Your task to perform on an android device: turn off translation in the chrome app Image 0: 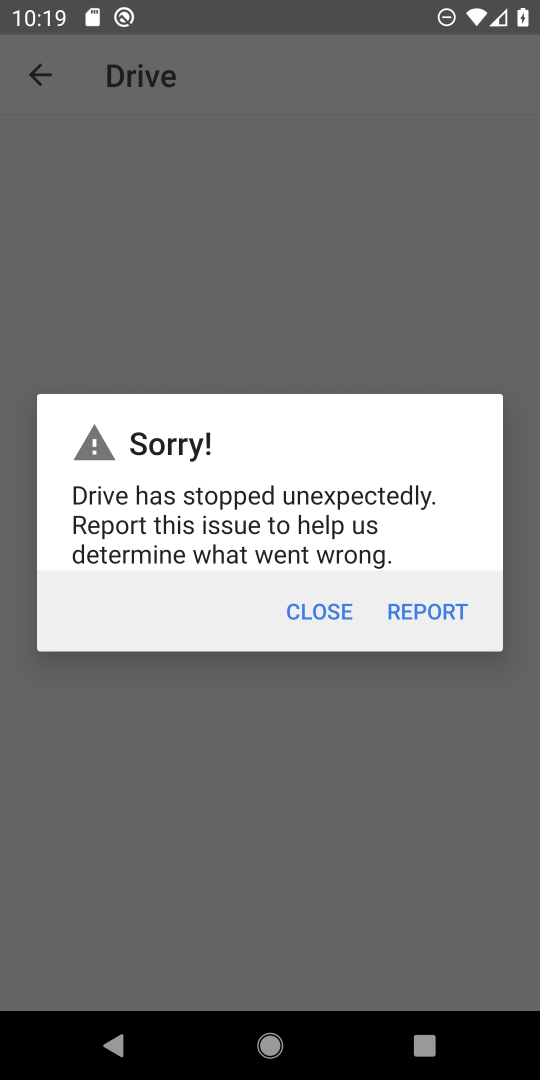
Step 0: click (302, 610)
Your task to perform on an android device: turn off translation in the chrome app Image 1: 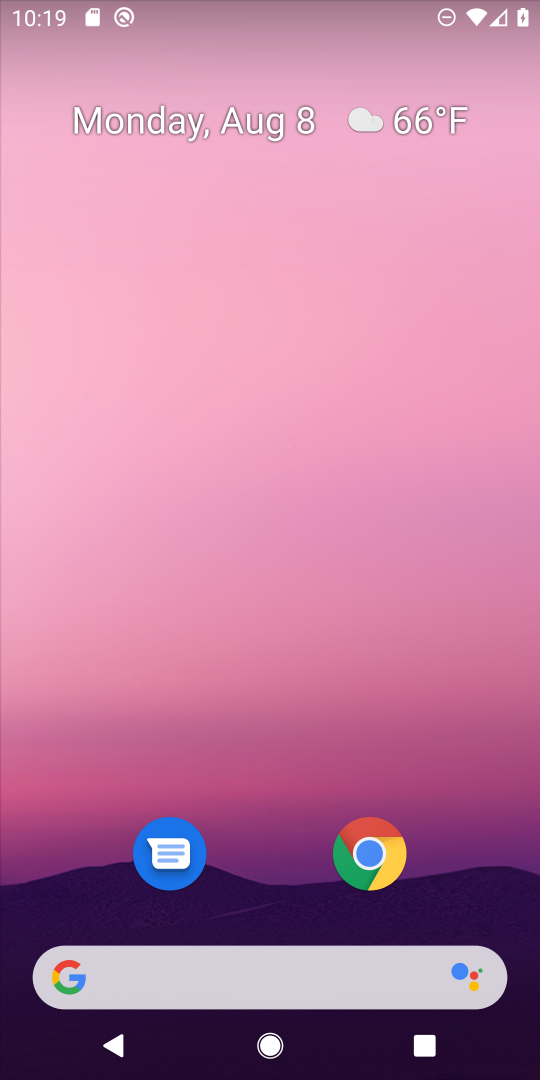
Step 1: click (351, 845)
Your task to perform on an android device: turn off translation in the chrome app Image 2: 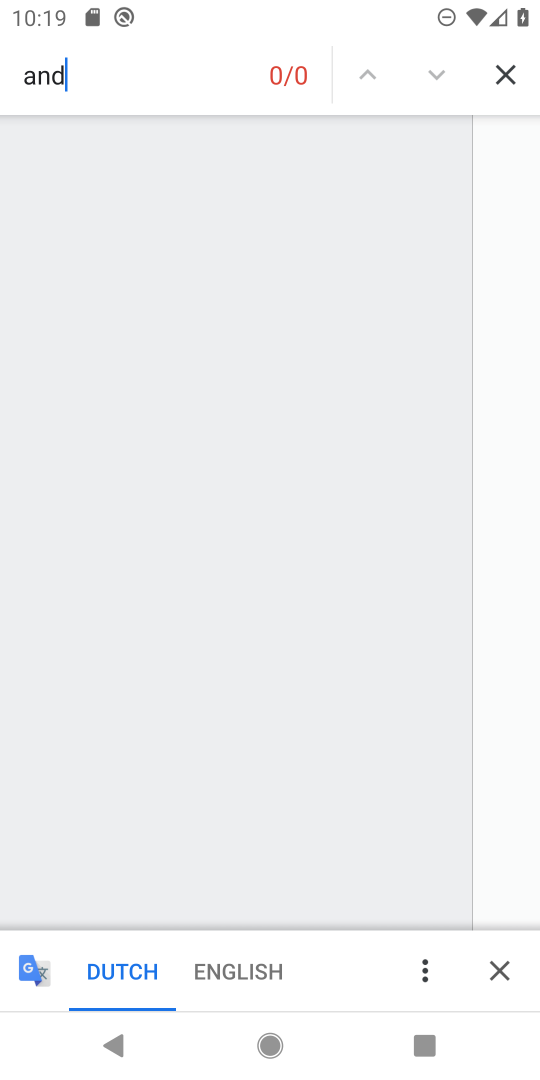
Step 2: click (217, 982)
Your task to perform on an android device: turn off translation in the chrome app Image 3: 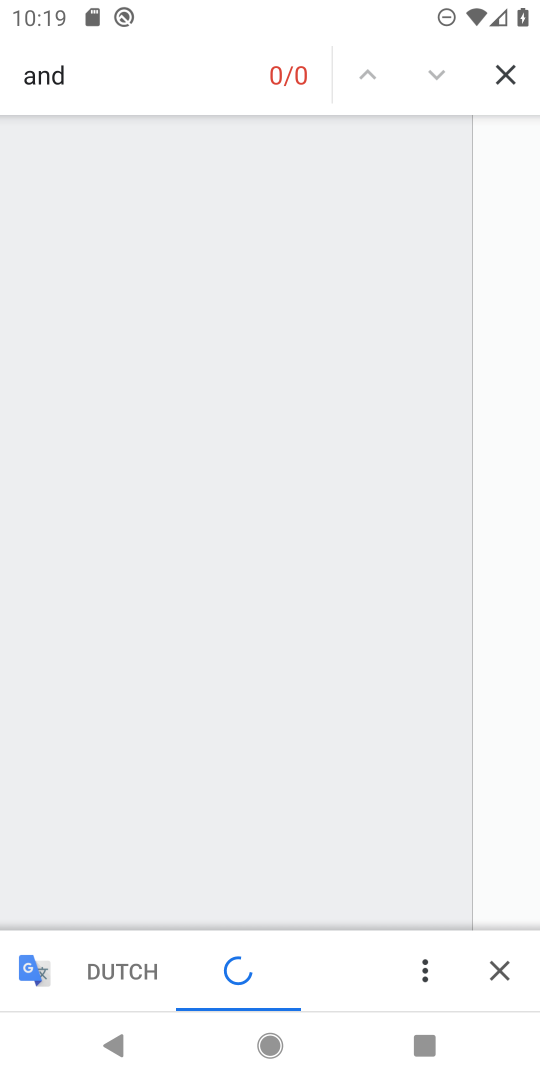
Step 3: click (502, 964)
Your task to perform on an android device: turn off translation in the chrome app Image 4: 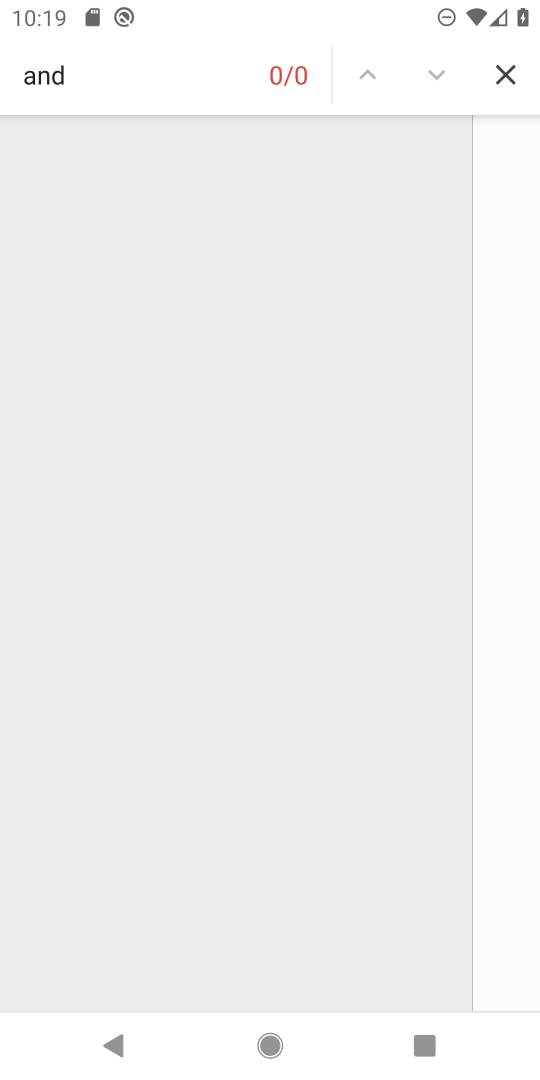
Step 4: click (496, 76)
Your task to perform on an android device: turn off translation in the chrome app Image 5: 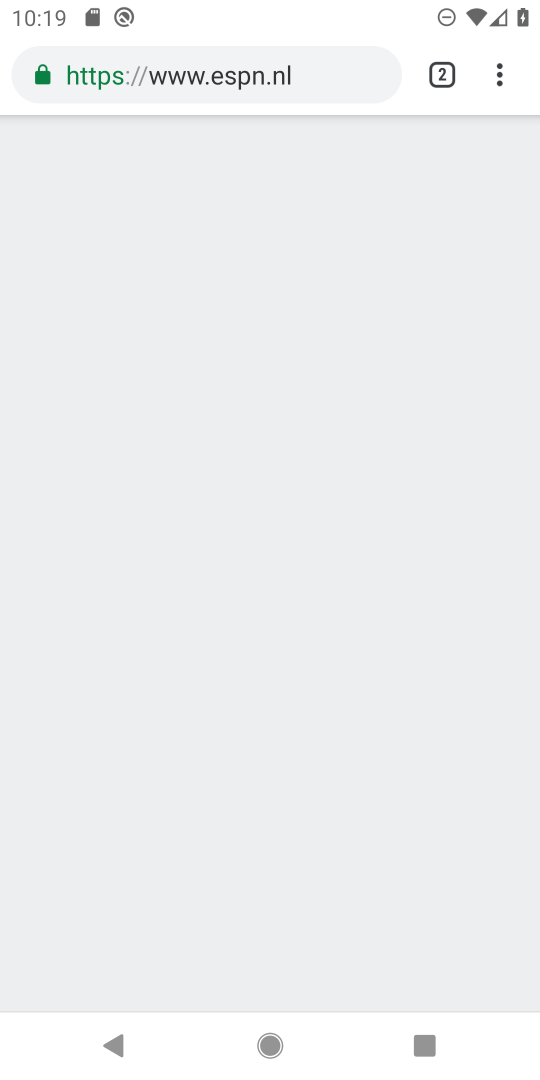
Step 5: click (496, 76)
Your task to perform on an android device: turn off translation in the chrome app Image 6: 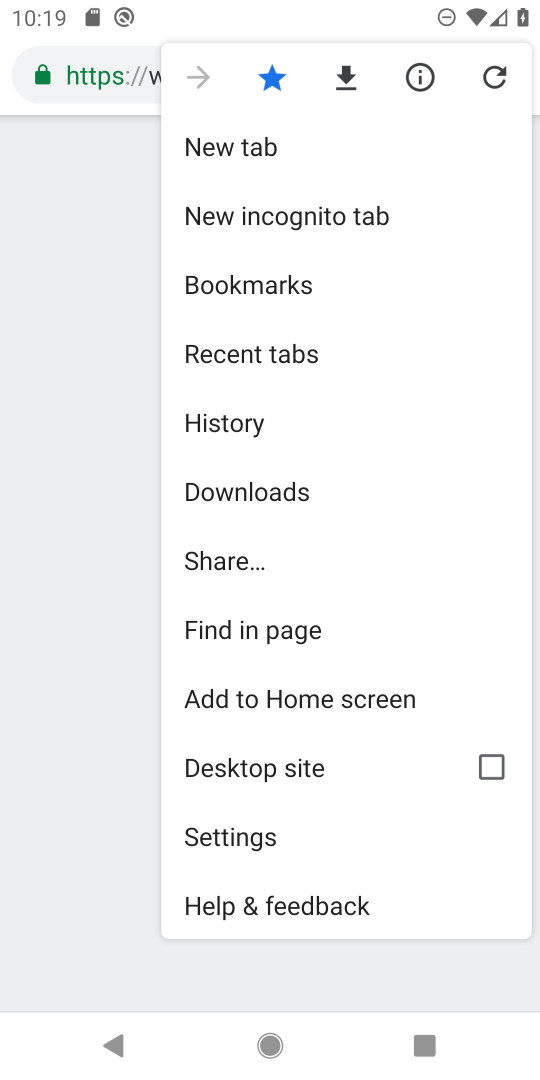
Step 6: click (230, 833)
Your task to perform on an android device: turn off translation in the chrome app Image 7: 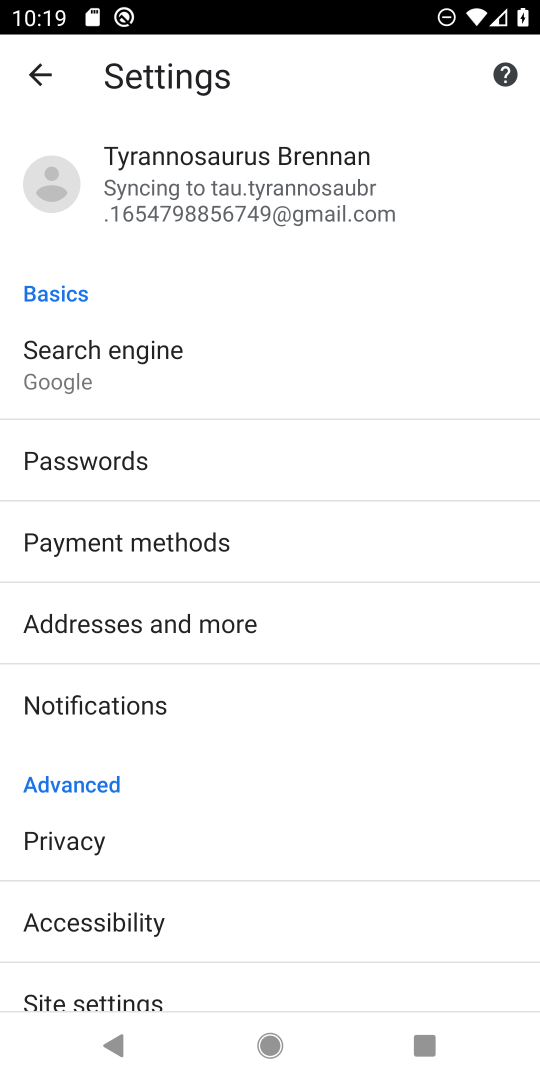
Step 7: drag from (259, 831) to (217, 585)
Your task to perform on an android device: turn off translation in the chrome app Image 8: 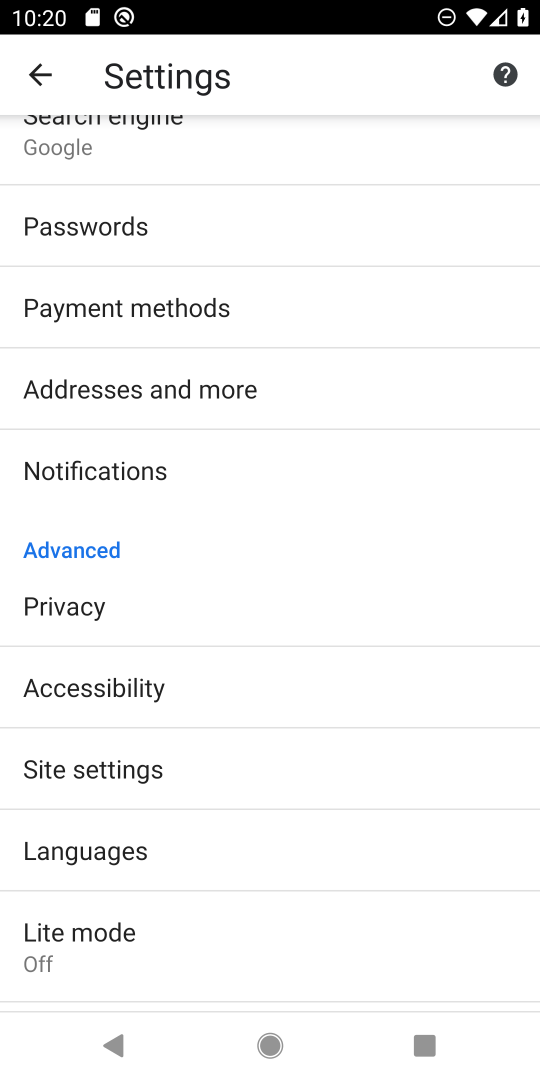
Step 8: click (61, 765)
Your task to perform on an android device: turn off translation in the chrome app Image 9: 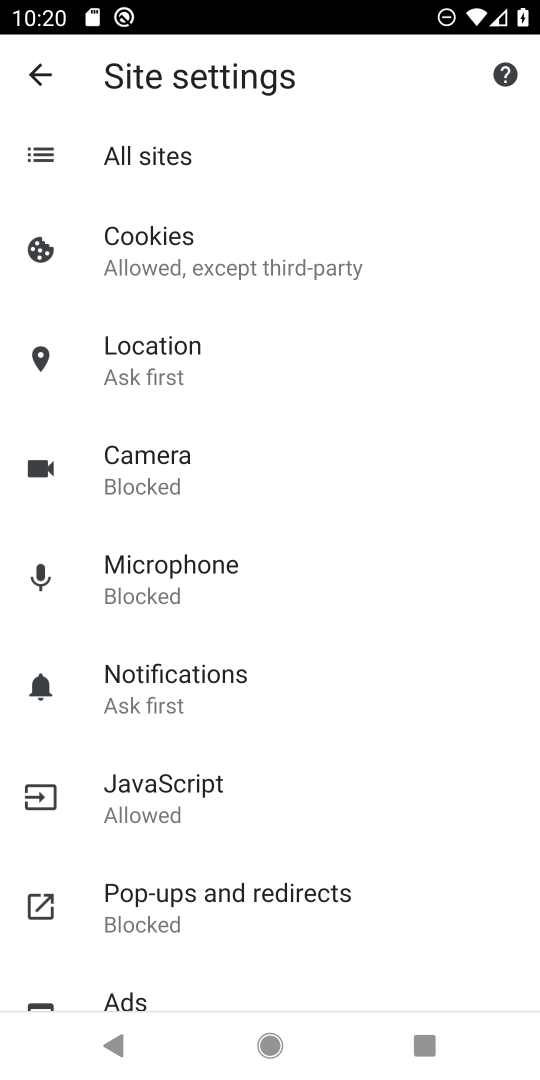
Step 9: click (51, 78)
Your task to perform on an android device: turn off translation in the chrome app Image 10: 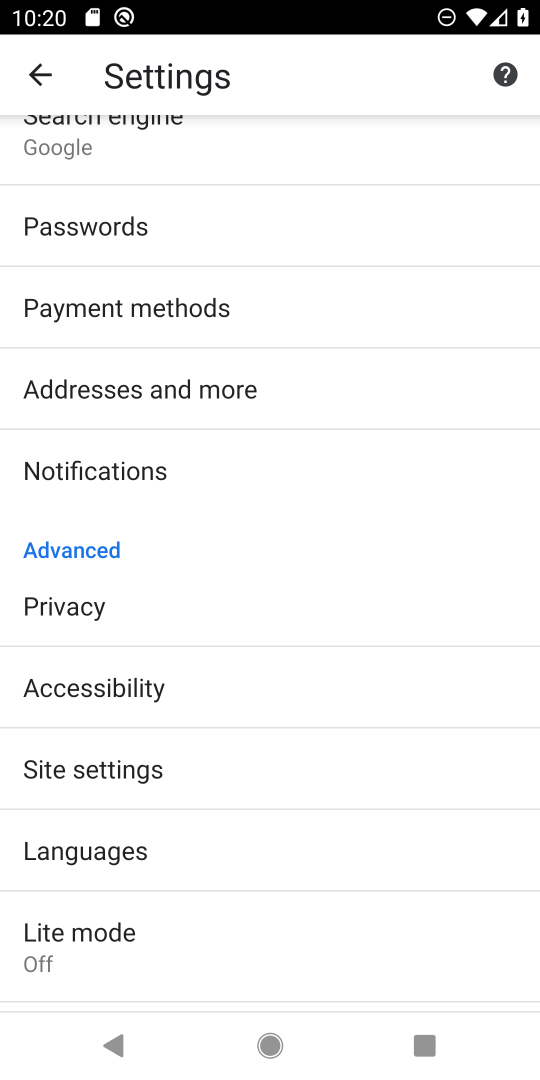
Step 10: click (131, 859)
Your task to perform on an android device: turn off translation in the chrome app Image 11: 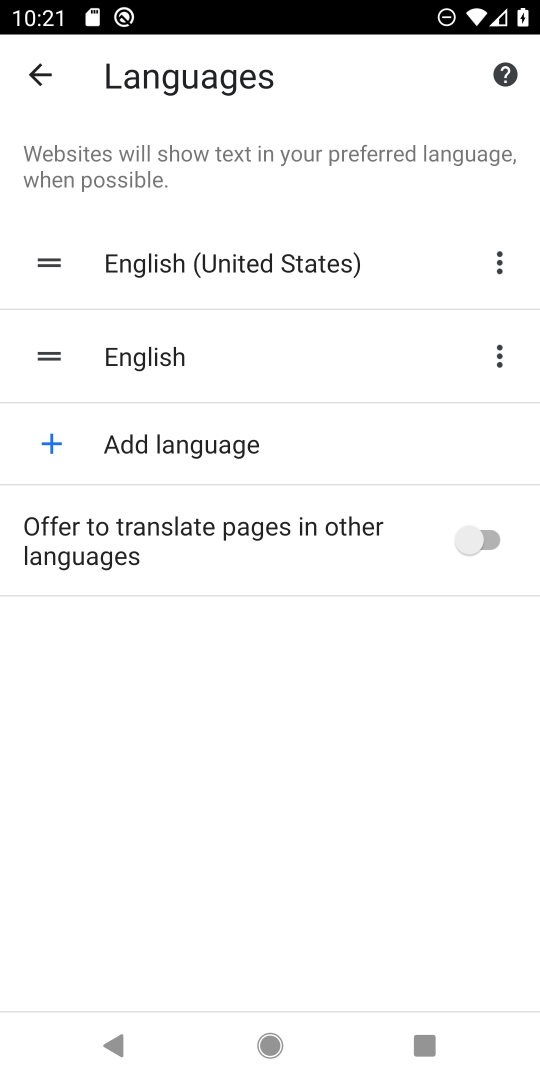
Step 11: task complete